Your task to perform on an android device: Open Google Chrome and click the shortcut for Amazon.com Image 0: 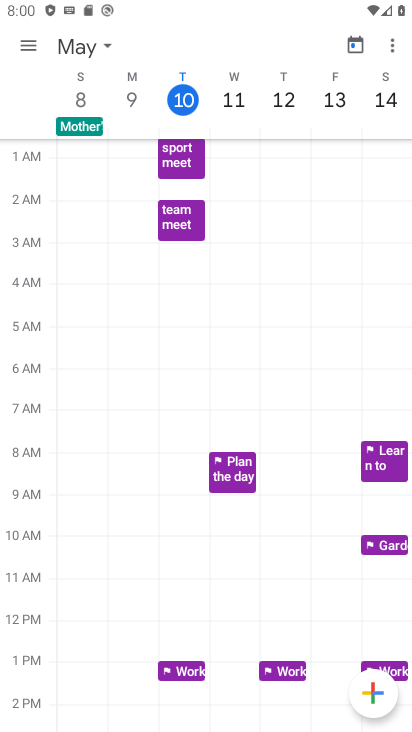
Step 0: press home button
Your task to perform on an android device: Open Google Chrome and click the shortcut for Amazon.com Image 1: 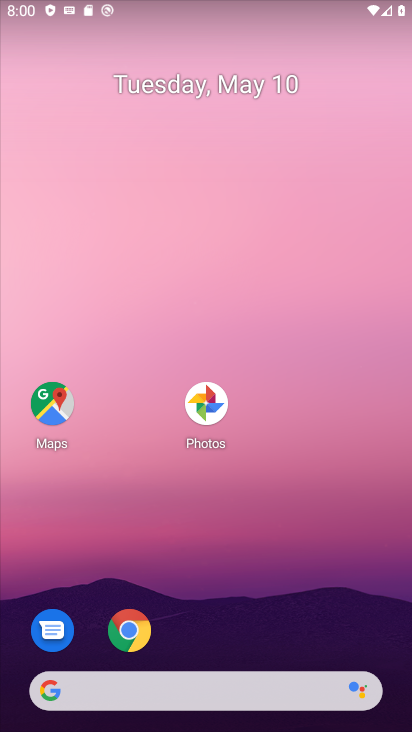
Step 1: click (144, 629)
Your task to perform on an android device: Open Google Chrome and click the shortcut for Amazon.com Image 2: 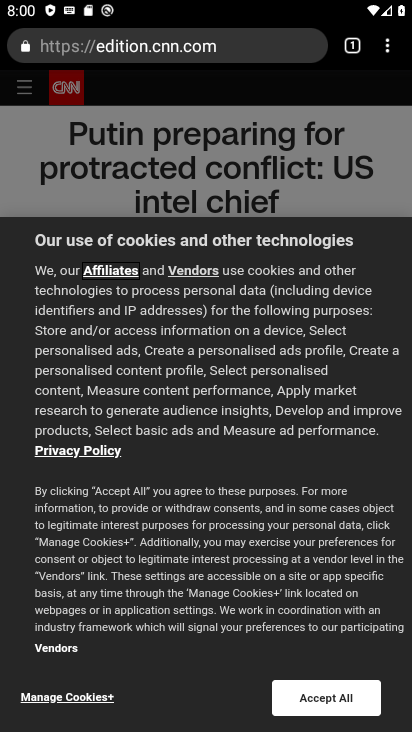
Step 2: click (344, 38)
Your task to perform on an android device: Open Google Chrome and click the shortcut for Amazon.com Image 3: 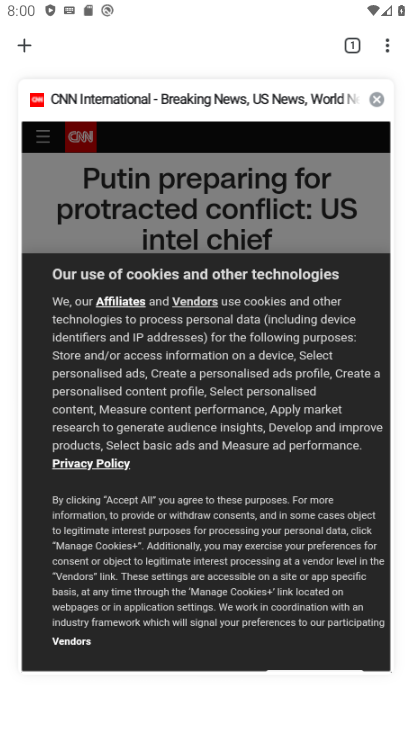
Step 3: click (5, 44)
Your task to perform on an android device: Open Google Chrome and click the shortcut for Amazon.com Image 4: 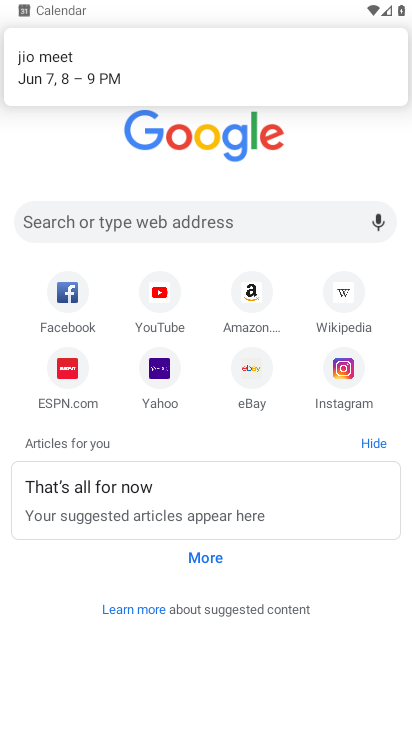
Step 4: click (253, 301)
Your task to perform on an android device: Open Google Chrome and click the shortcut for Amazon.com Image 5: 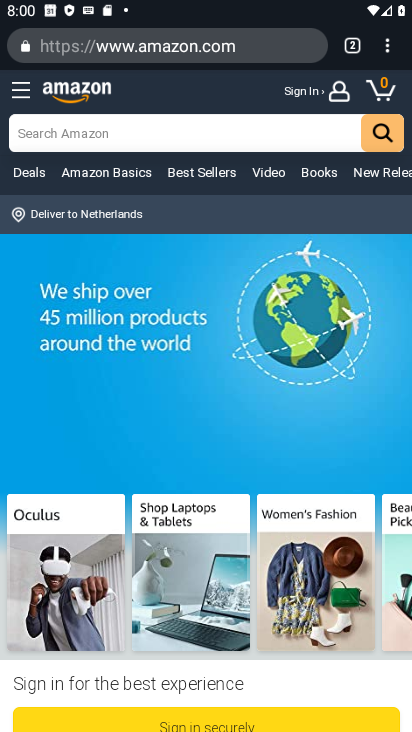
Step 5: task complete